Your task to perform on an android device: turn smart compose on in the gmail app Image 0: 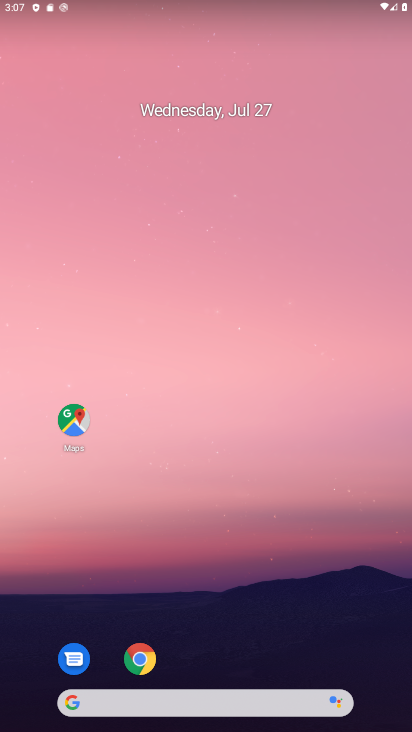
Step 0: drag from (221, 664) to (229, 54)
Your task to perform on an android device: turn smart compose on in the gmail app Image 1: 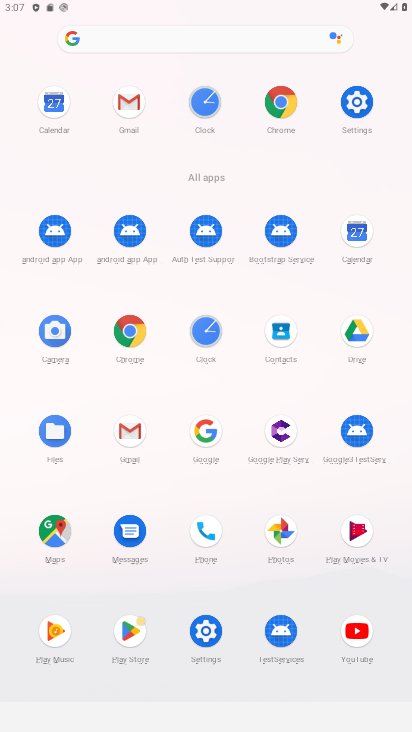
Step 1: click (128, 119)
Your task to perform on an android device: turn smart compose on in the gmail app Image 2: 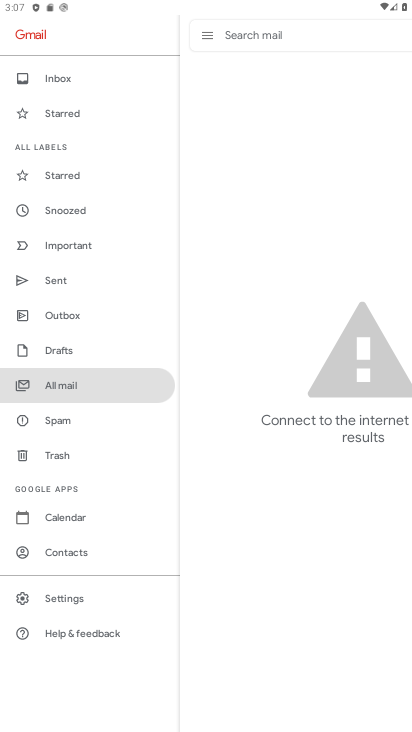
Step 2: click (90, 605)
Your task to perform on an android device: turn smart compose on in the gmail app Image 3: 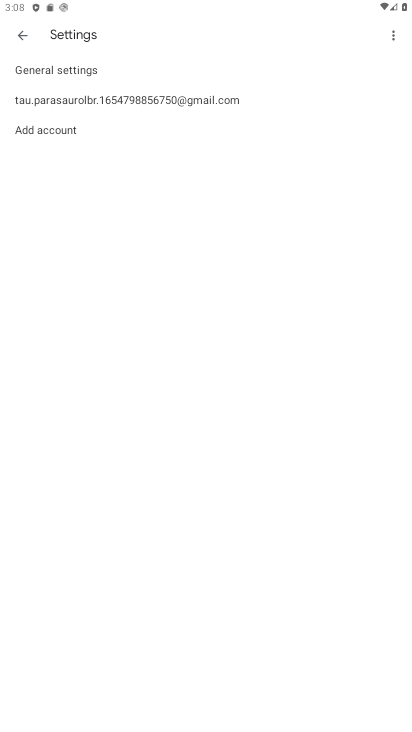
Step 3: click (56, 100)
Your task to perform on an android device: turn smart compose on in the gmail app Image 4: 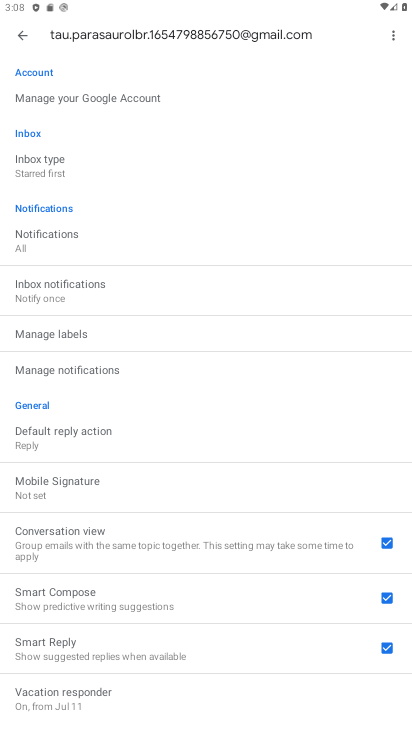
Step 4: task complete